Your task to perform on an android device: snooze an email in the gmail app Image 0: 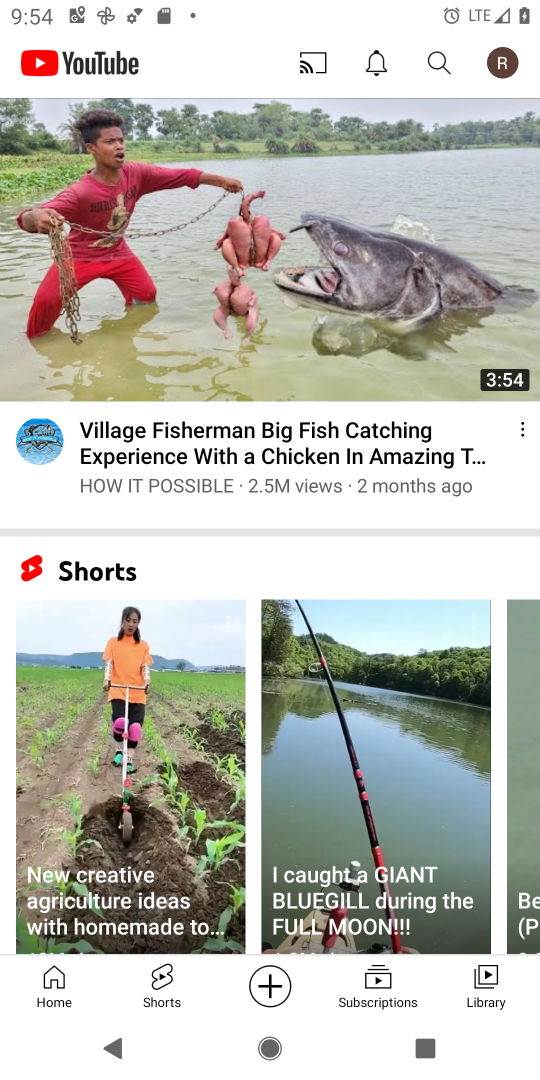
Step 0: press home button
Your task to perform on an android device: snooze an email in the gmail app Image 1: 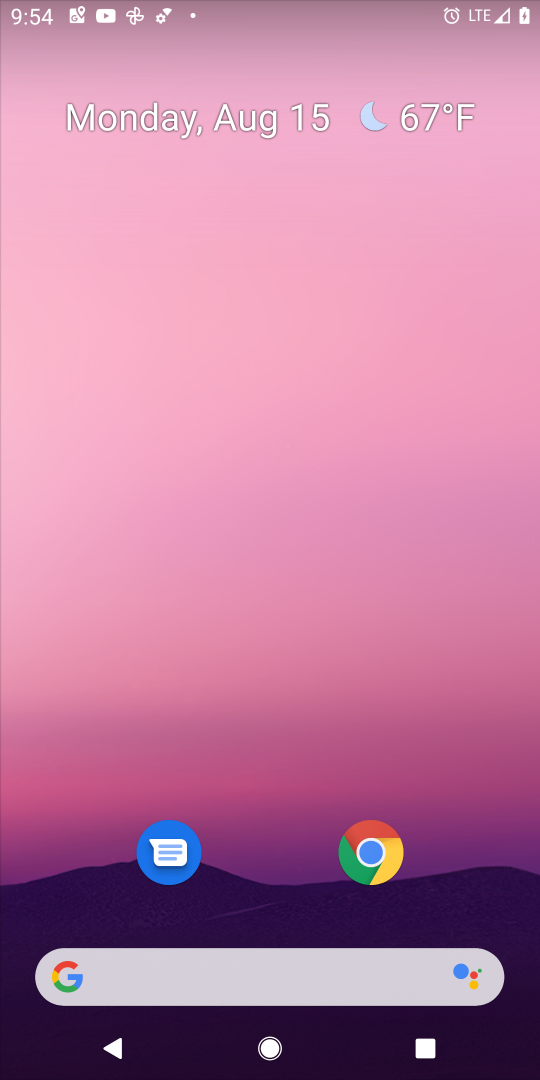
Step 1: drag from (240, 984) to (322, 105)
Your task to perform on an android device: snooze an email in the gmail app Image 2: 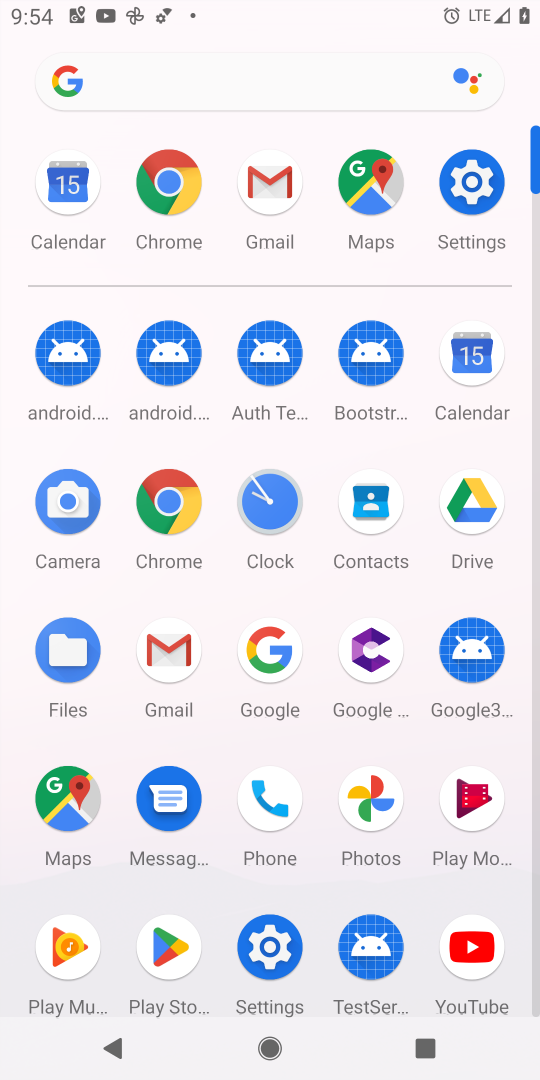
Step 2: click (269, 180)
Your task to perform on an android device: snooze an email in the gmail app Image 3: 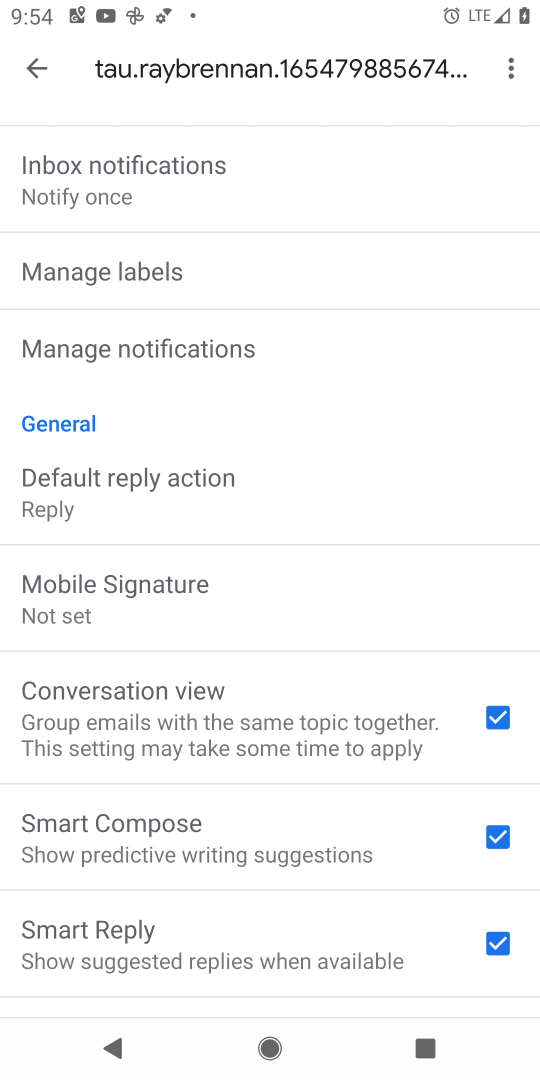
Step 3: press back button
Your task to perform on an android device: snooze an email in the gmail app Image 4: 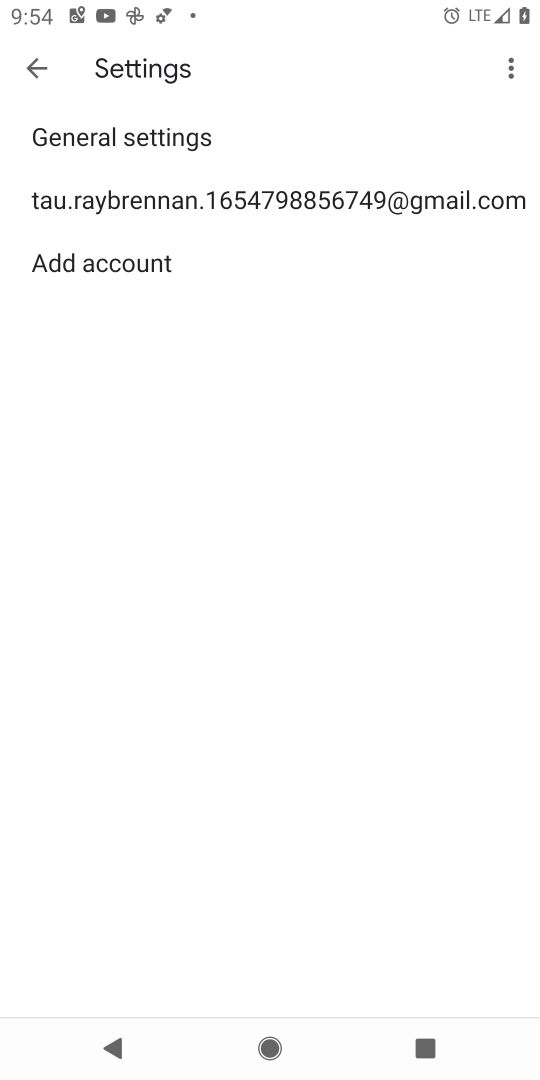
Step 4: press back button
Your task to perform on an android device: snooze an email in the gmail app Image 5: 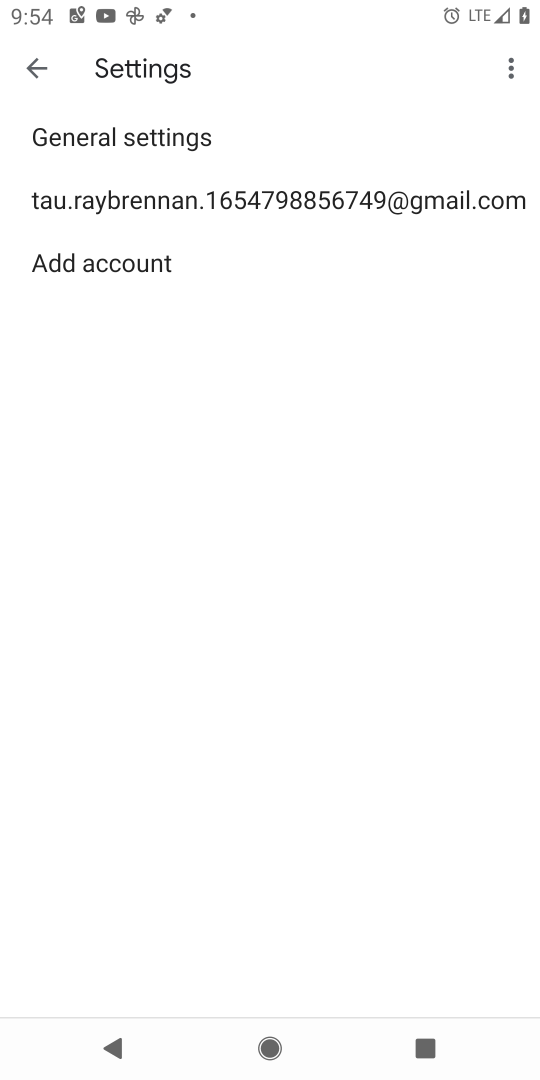
Step 5: press back button
Your task to perform on an android device: snooze an email in the gmail app Image 6: 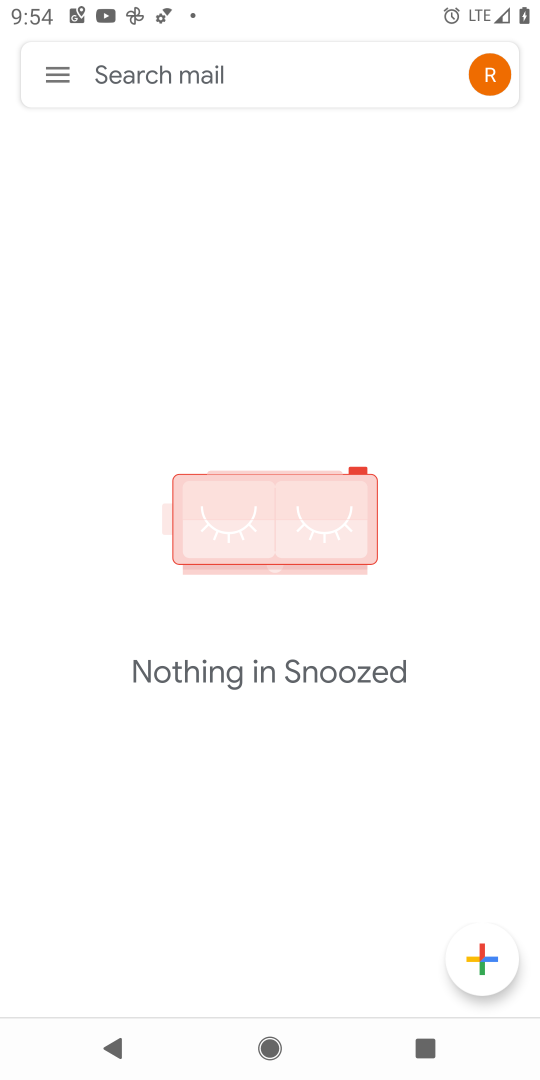
Step 6: click (50, 70)
Your task to perform on an android device: snooze an email in the gmail app Image 7: 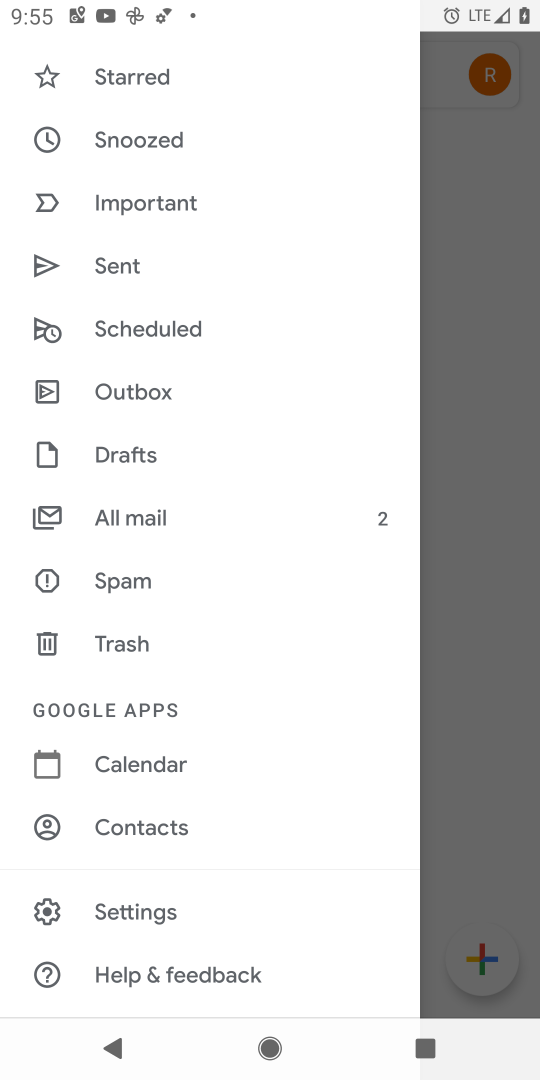
Step 7: click (146, 499)
Your task to perform on an android device: snooze an email in the gmail app Image 8: 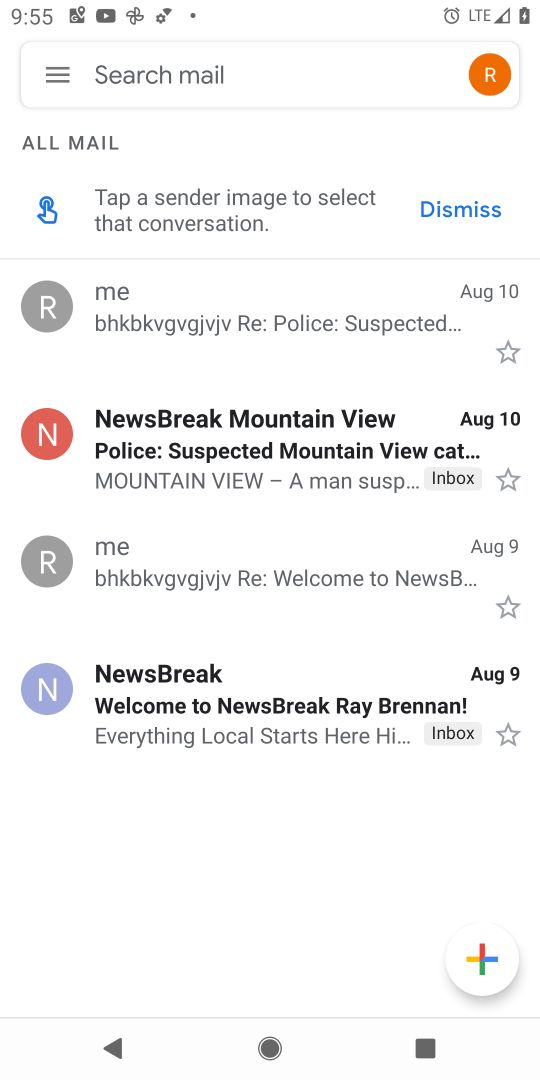
Step 8: click (262, 330)
Your task to perform on an android device: snooze an email in the gmail app Image 9: 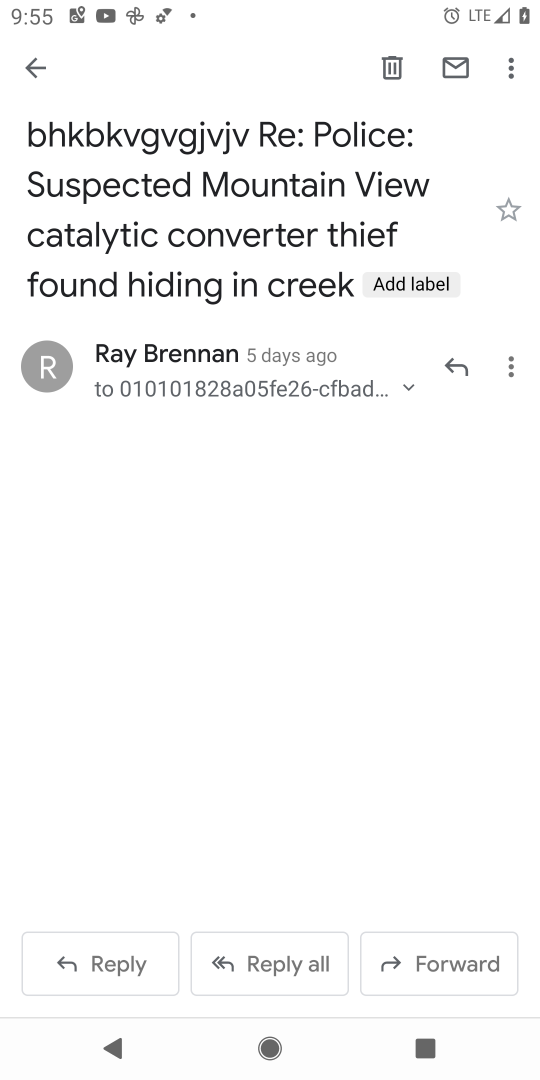
Step 9: click (512, 77)
Your task to perform on an android device: snooze an email in the gmail app Image 10: 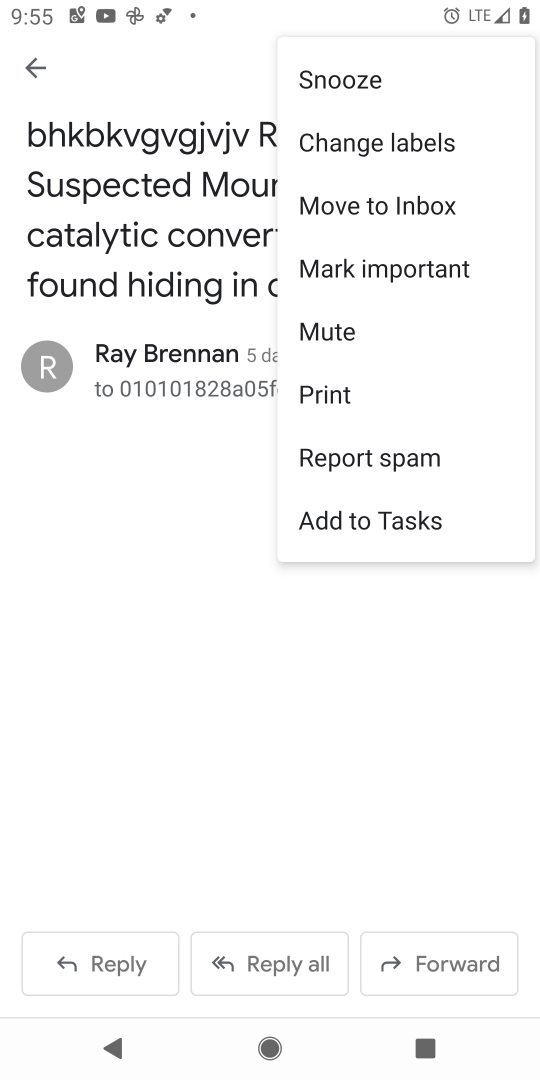
Step 10: click (371, 95)
Your task to perform on an android device: snooze an email in the gmail app Image 11: 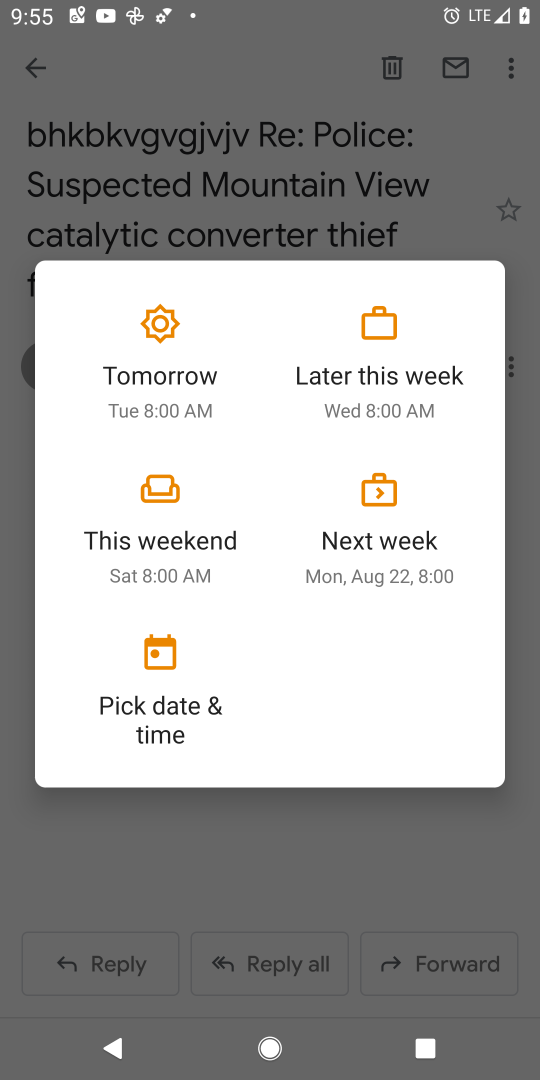
Step 11: click (160, 516)
Your task to perform on an android device: snooze an email in the gmail app Image 12: 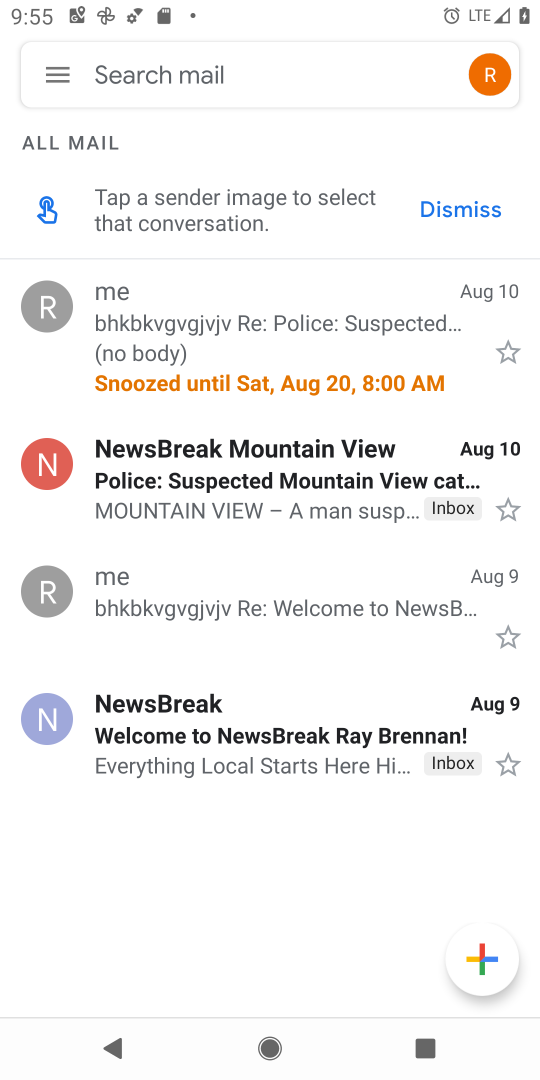
Step 12: task complete